Your task to perform on an android device: toggle data saver in the chrome app Image 0: 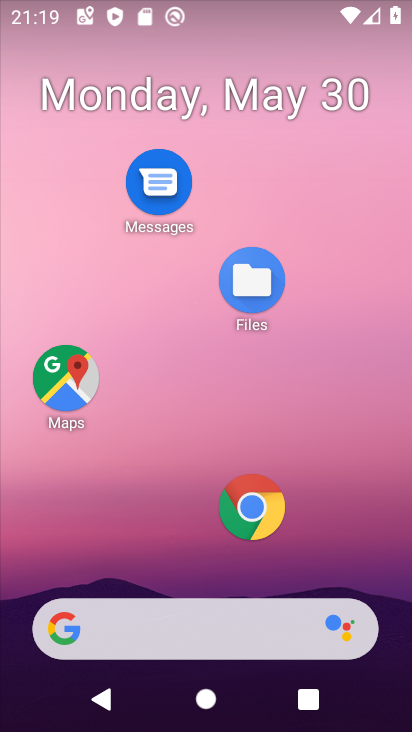
Step 0: click (251, 495)
Your task to perform on an android device: toggle data saver in the chrome app Image 1: 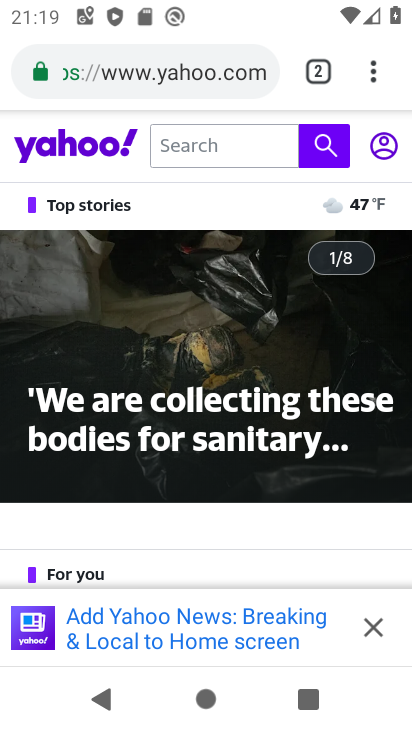
Step 1: click (367, 617)
Your task to perform on an android device: toggle data saver in the chrome app Image 2: 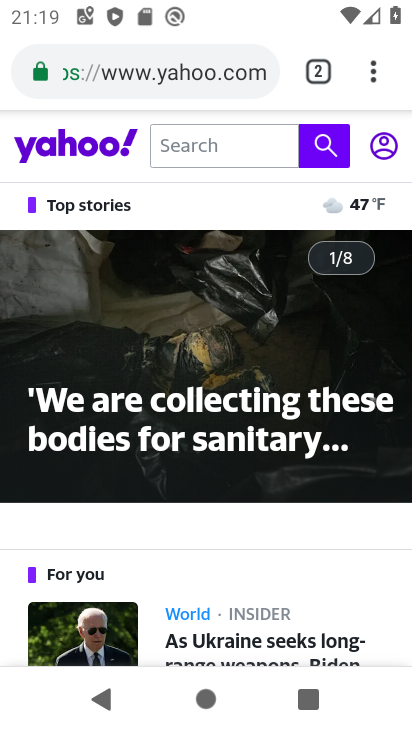
Step 2: click (376, 81)
Your task to perform on an android device: toggle data saver in the chrome app Image 3: 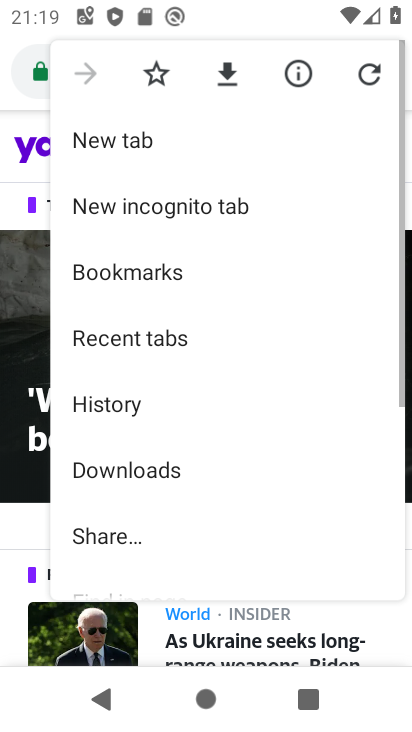
Step 3: drag from (139, 543) to (179, 83)
Your task to perform on an android device: toggle data saver in the chrome app Image 4: 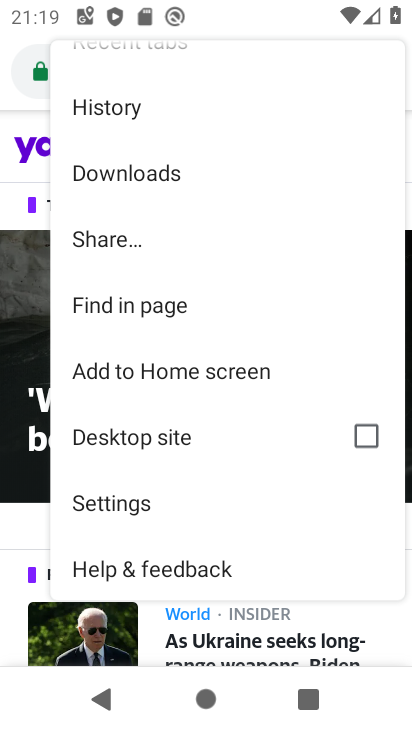
Step 4: click (99, 513)
Your task to perform on an android device: toggle data saver in the chrome app Image 5: 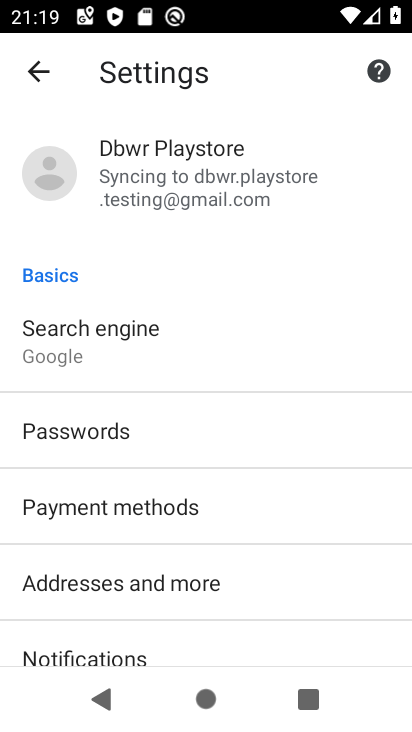
Step 5: drag from (144, 598) to (202, 165)
Your task to perform on an android device: toggle data saver in the chrome app Image 6: 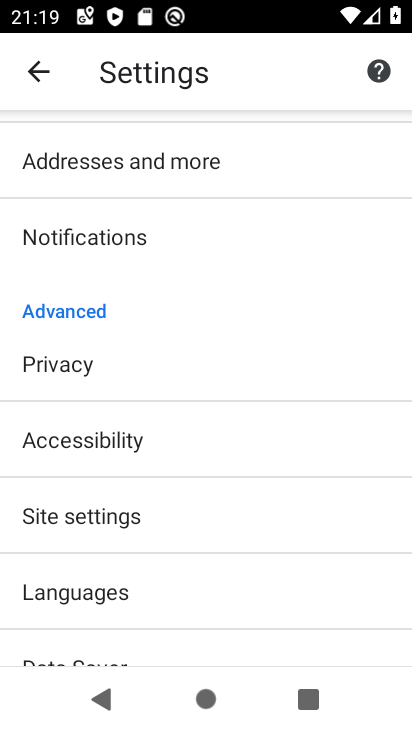
Step 6: drag from (115, 599) to (130, 312)
Your task to perform on an android device: toggle data saver in the chrome app Image 7: 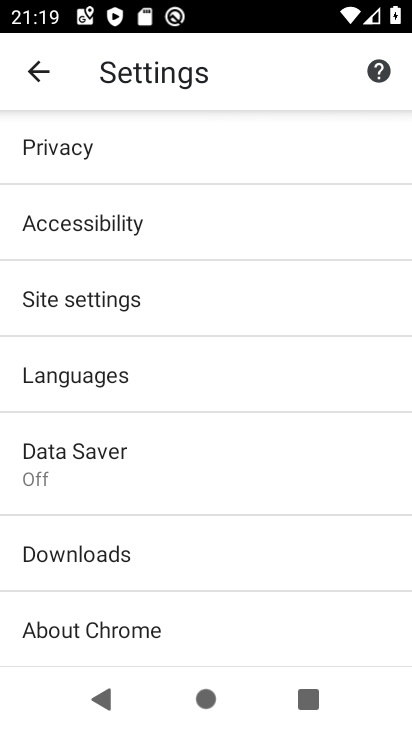
Step 7: click (140, 449)
Your task to perform on an android device: toggle data saver in the chrome app Image 8: 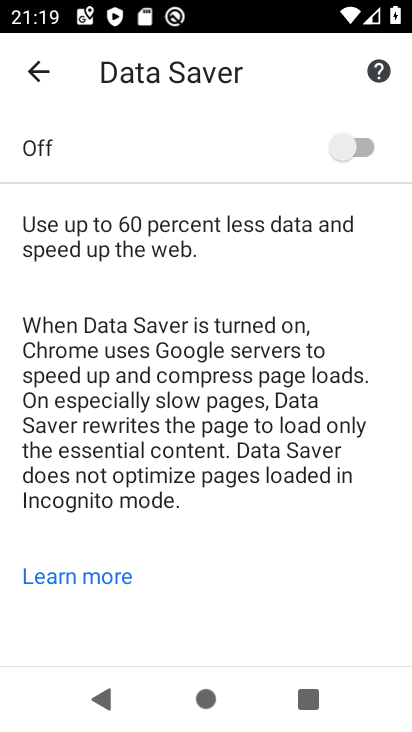
Step 8: click (346, 156)
Your task to perform on an android device: toggle data saver in the chrome app Image 9: 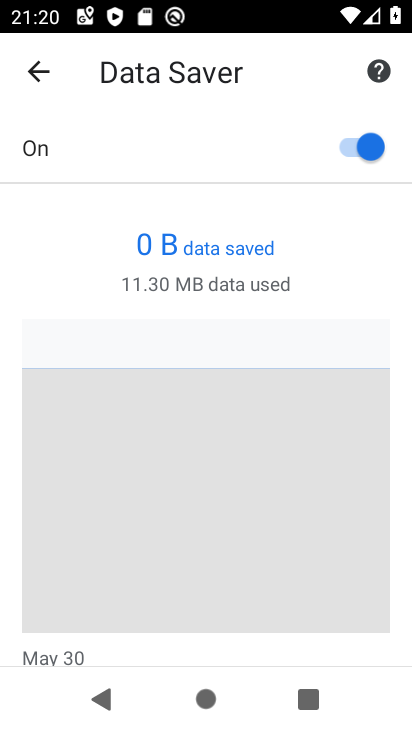
Step 9: task complete